Your task to perform on an android device: See recent photos Image 0: 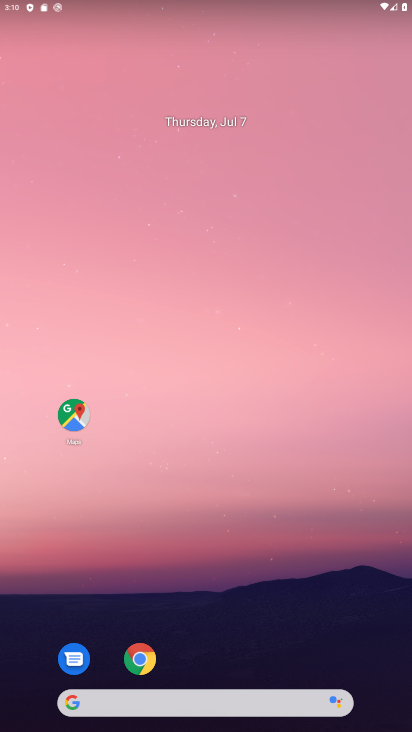
Step 0: drag from (231, 664) to (81, 129)
Your task to perform on an android device: See recent photos Image 1: 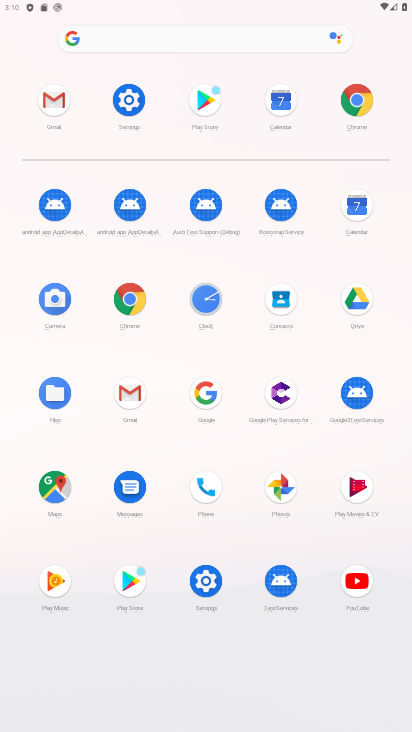
Step 1: click (288, 508)
Your task to perform on an android device: See recent photos Image 2: 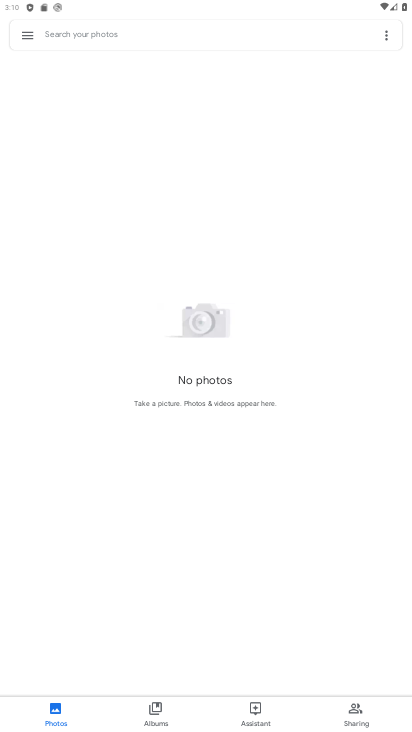
Step 2: task complete